Your task to perform on an android device: star an email in the gmail app Image 0: 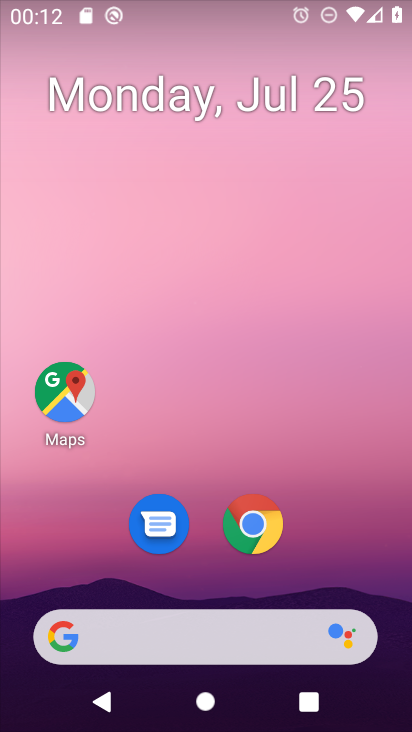
Step 0: drag from (250, 587) to (345, 269)
Your task to perform on an android device: star an email in the gmail app Image 1: 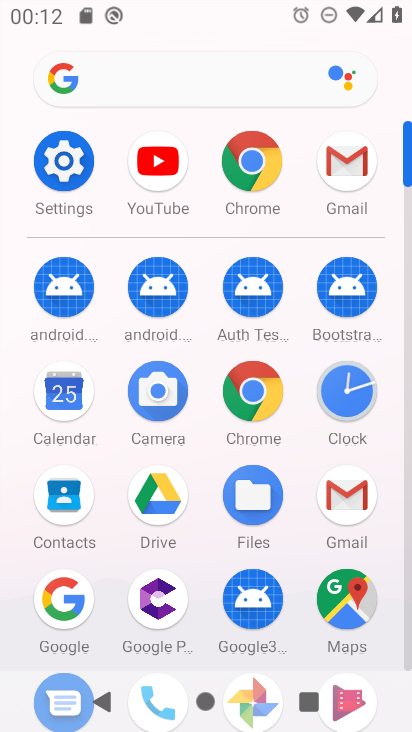
Step 1: click (340, 170)
Your task to perform on an android device: star an email in the gmail app Image 2: 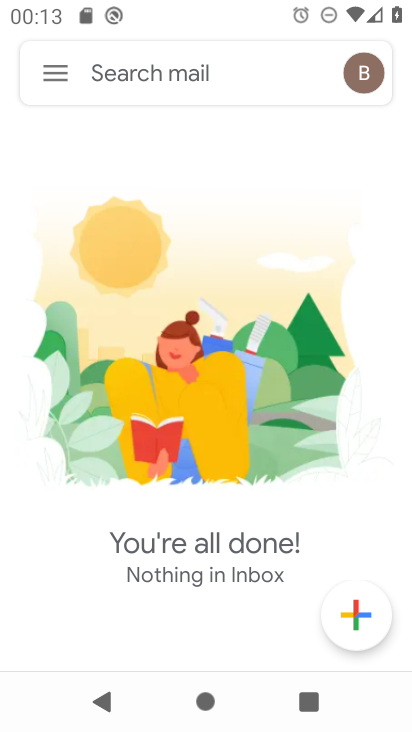
Step 2: task complete